Your task to perform on an android device: Open notification settings Image 0: 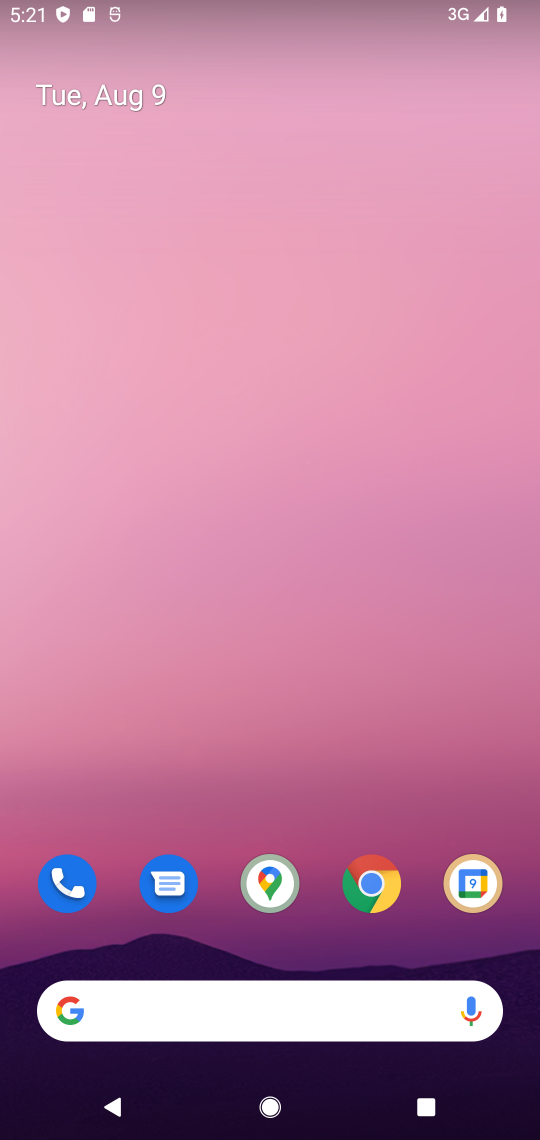
Step 0: drag from (255, 817) to (315, 138)
Your task to perform on an android device: Open notification settings Image 1: 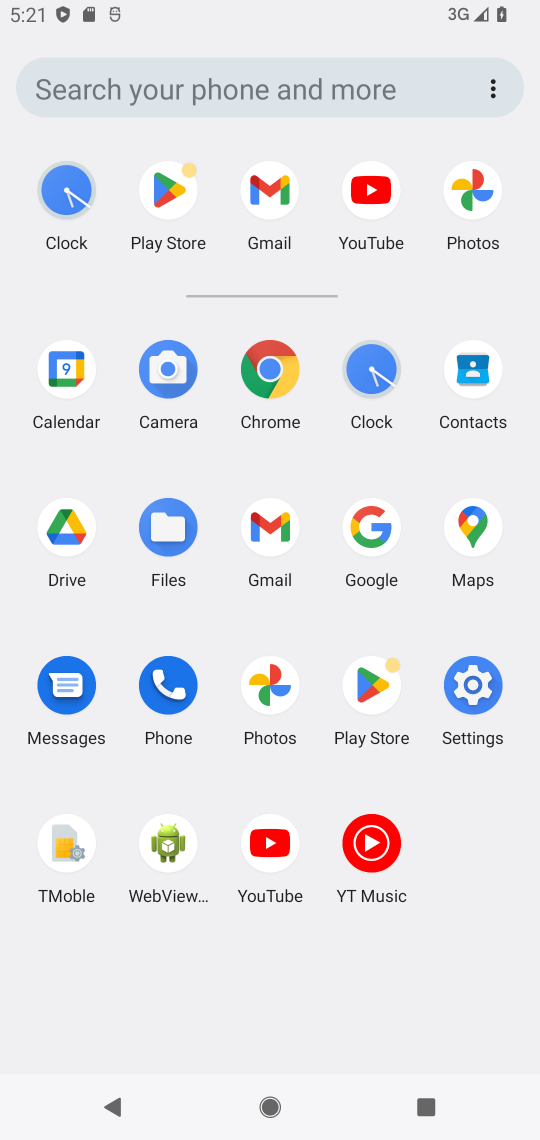
Step 1: click (441, 688)
Your task to perform on an android device: Open notification settings Image 2: 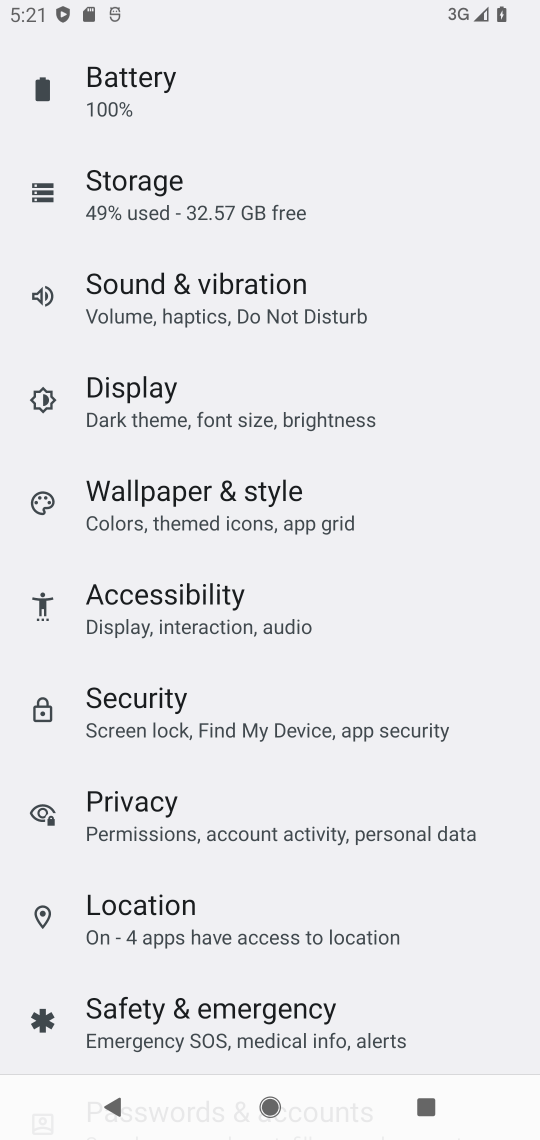
Step 2: drag from (223, 351) to (243, 823)
Your task to perform on an android device: Open notification settings Image 3: 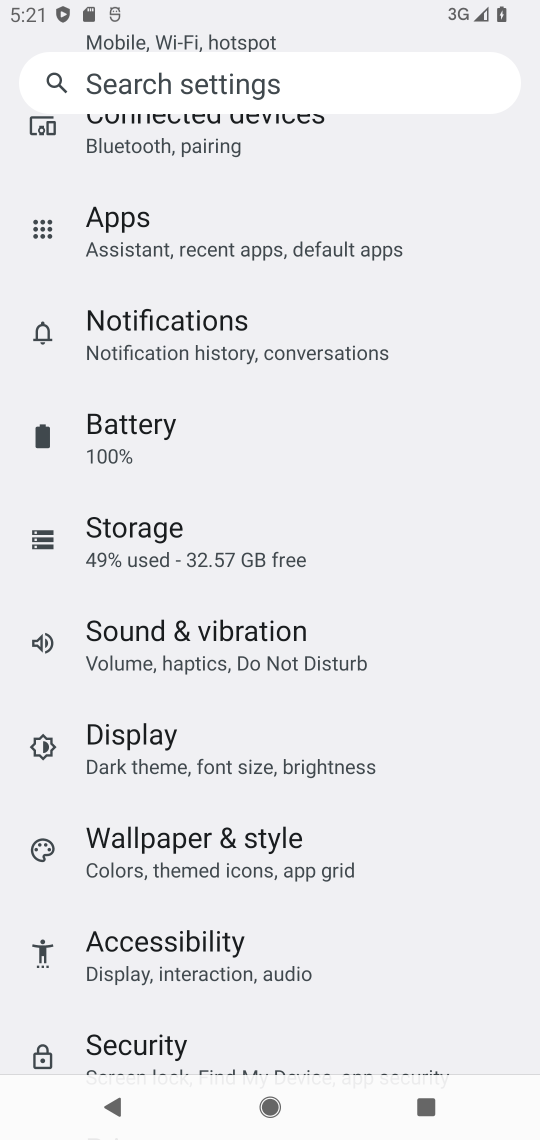
Step 3: click (220, 356)
Your task to perform on an android device: Open notification settings Image 4: 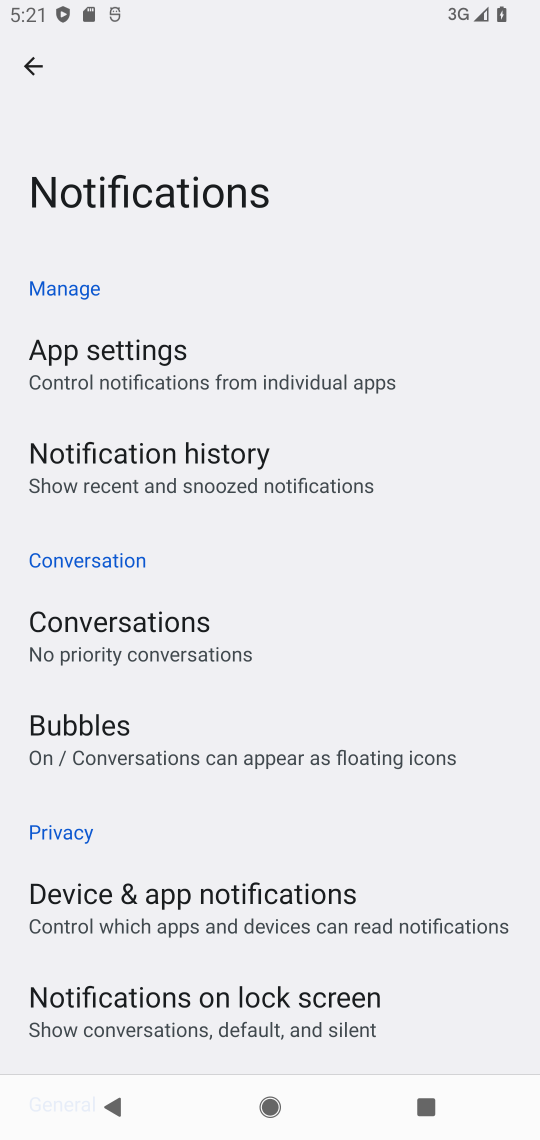
Step 4: task complete